Your task to perform on an android device: Search for vegetarian restaurants on Maps Image 0: 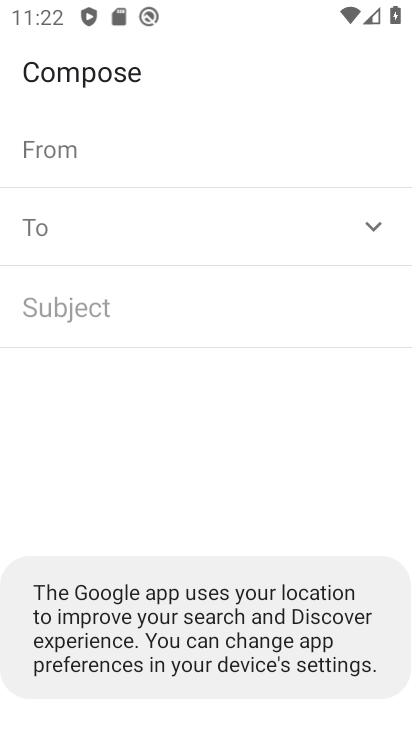
Step 0: drag from (179, 134) to (171, 301)
Your task to perform on an android device: Search for vegetarian restaurants on Maps Image 1: 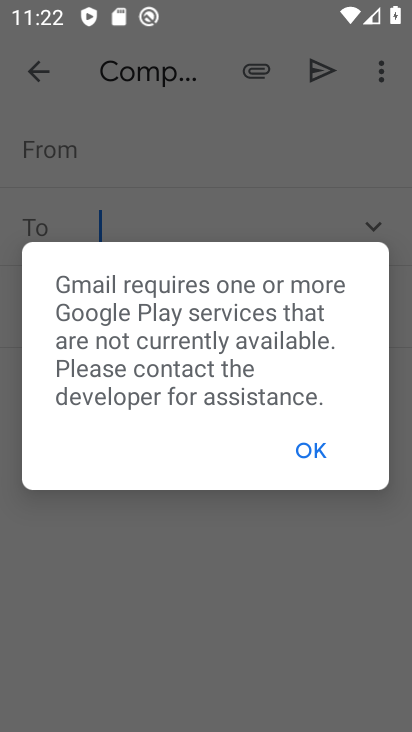
Step 1: press home button
Your task to perform on an android device: Search for vegetarian restaurants on Maps Image 2: 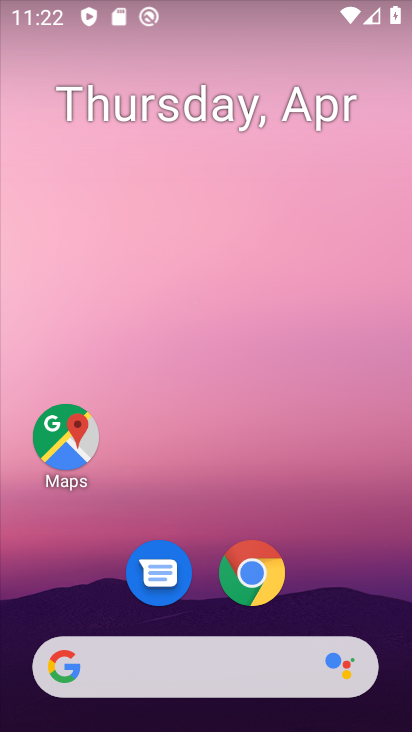
Step 2: drag from (180, 666) to (242, 240)
Your task to perform on an android device: Search for vegetarian restaurants on Maps Image 3: 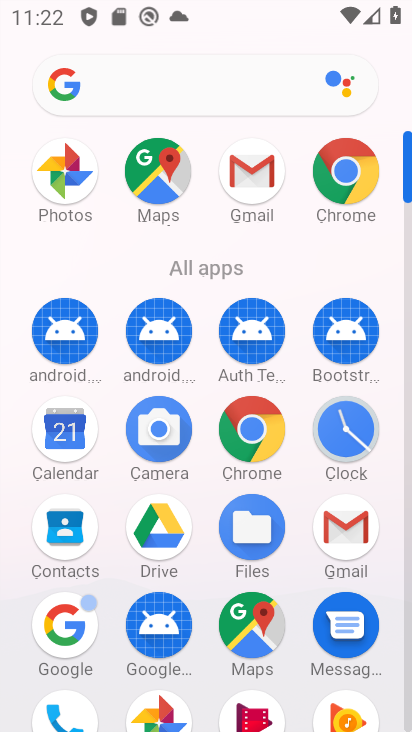
Step 3: click (164, 186)
Your task to perform on an android device: Search for vegetarian restaurants on Maps Image 4: 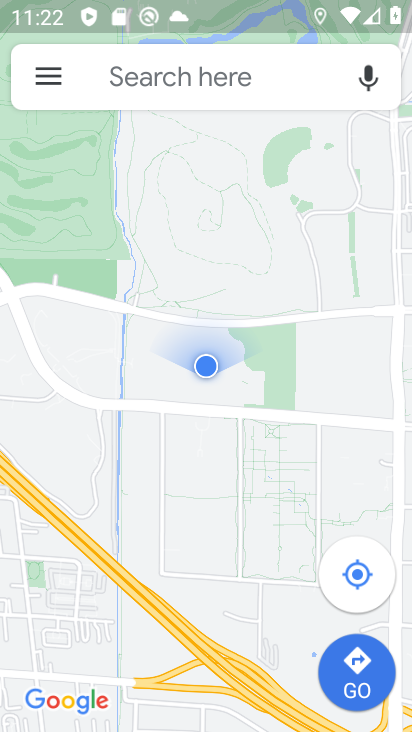
Step 4: click (191, 75)
Your task to perform on an android device: Search for vegetarian restaurants on Maps Image 5: 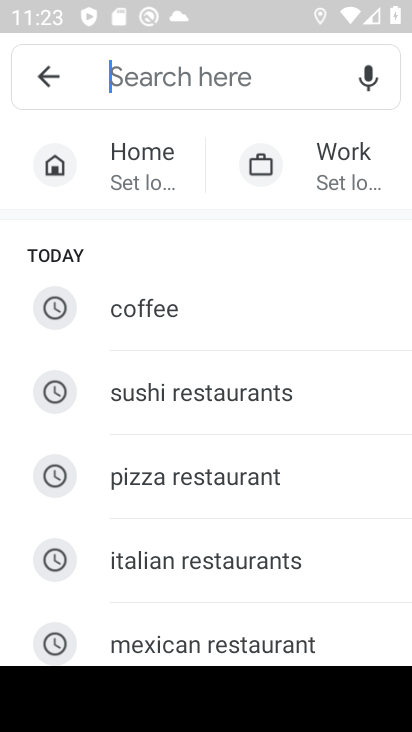
Step 5: drag from (185, 603) to (314, 319)
Your task to perform on an android device: Search for vegetarian restaurants on Maps Image 6: 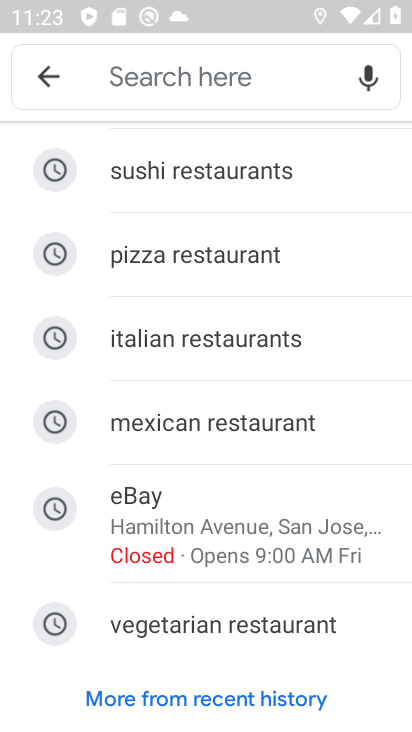
Step 6: click (200, 630)
Your task to perform on an android device: Search for vegetarian restaurants on Maps Image 7: 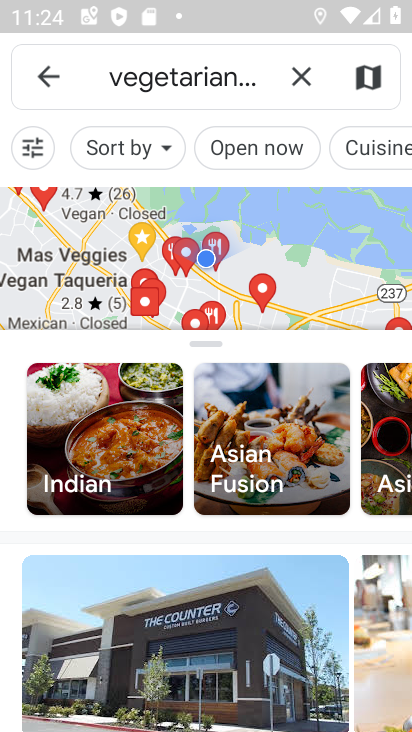
Step 7: task complete